Your task to perform on an android device: see creations saved in the google photos Image 0: 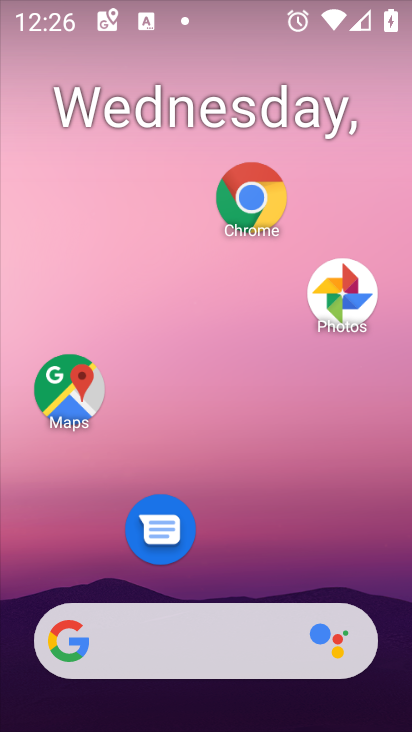
Step 0: drag from (233, 396) to (301, 56)
Your task to perform on an android device: see creations saved in the google photos Image 1: 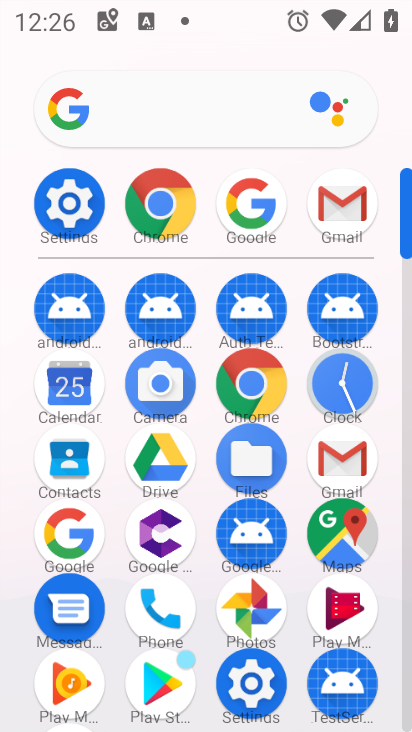
Step 1: click (268, 620)
Your task to perform on an android device: see creations saved in the google photos Image 2: 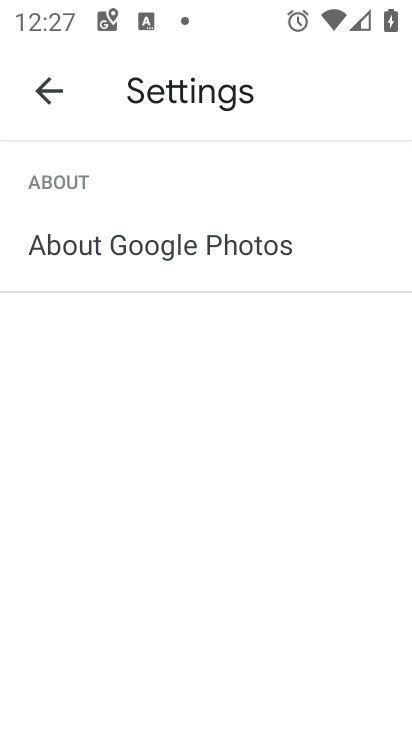
Step 2: press home button
Your task to perform on an android device: see creations saved in the google photos Image 3: 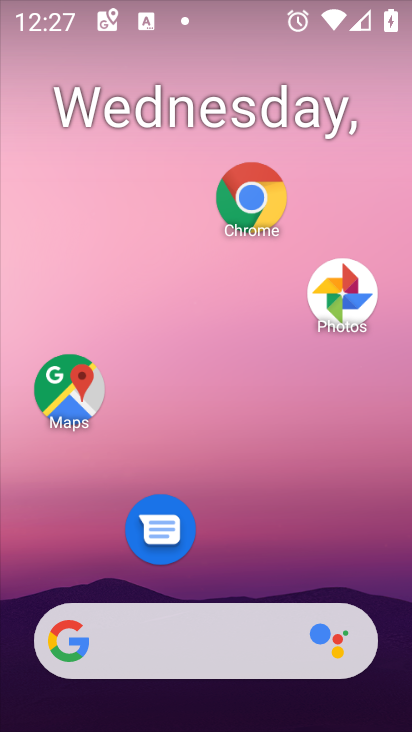
Step 3: click (335, 287)
Your task to perform on an android device: see creations saved in the google photos Image 4: 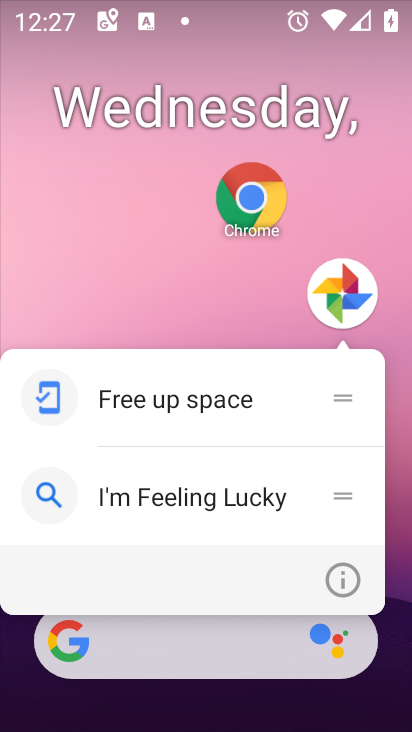
Step 4: click (355, 305)
Your task to perform on an android device: see creations saved in the google photos Image 5: 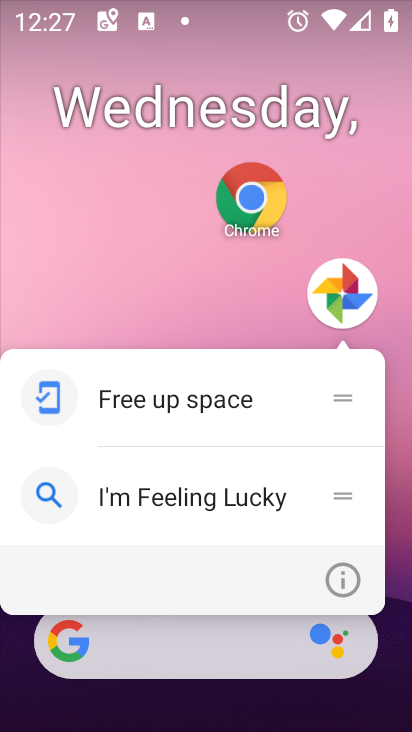
Step 5: click (354, 291)
Your task to perform on an android device: see creations saved in the google photos Image 6: 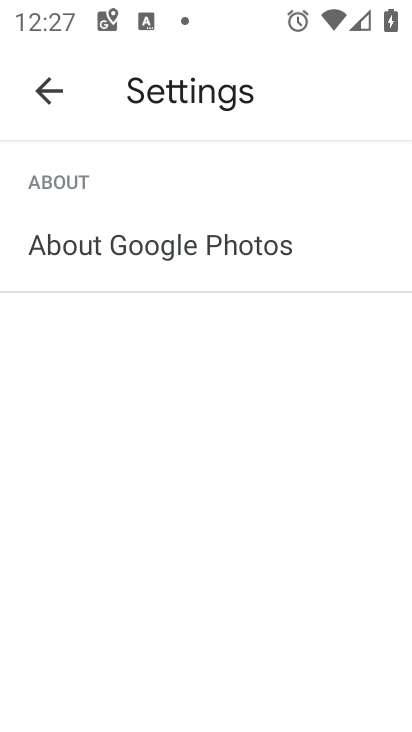
Step 6: click (45, 95)
Your task to perform on an android device: see creations saved in the google photos Image 7: 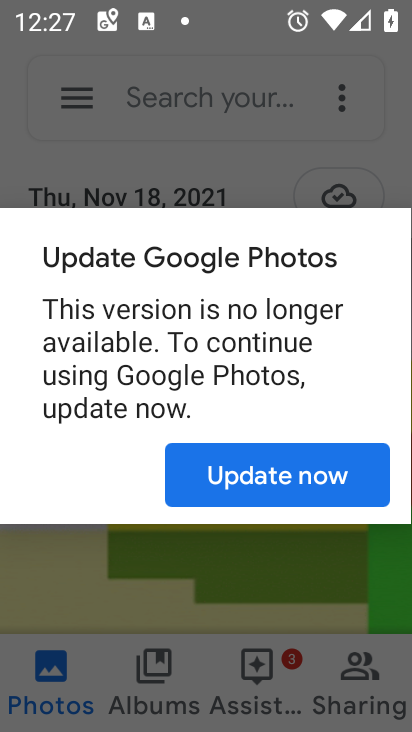
Step 7: task complete